Your task to perform on an android device: turn off location Image 0: 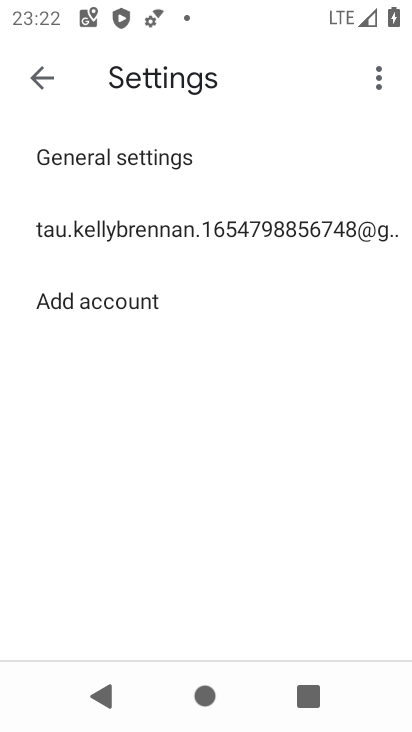
Step 0: press home button
Your task to perform on an android device: turn off location Image 1: 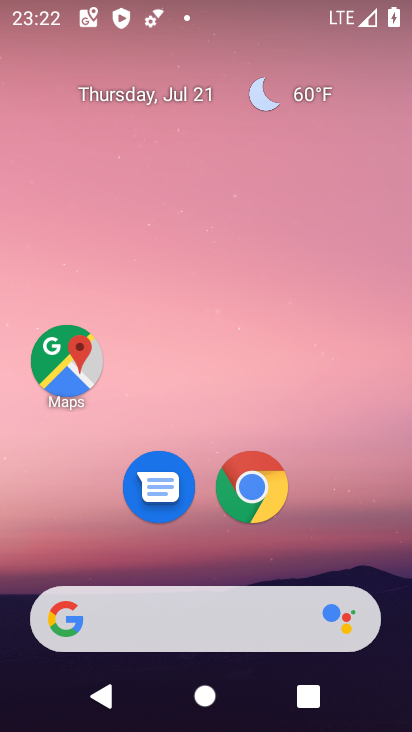
Step 1: drag from (117, 570) to (234, 26)
Your task to perform on an android device: turn off location Image 2: 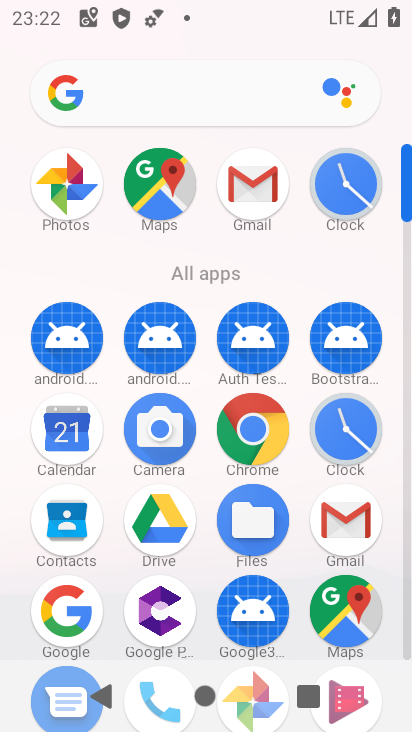
Step 2: drag from (155, 574) to (218, 127)
Your task to perform on an android device: turn off location Image 3: 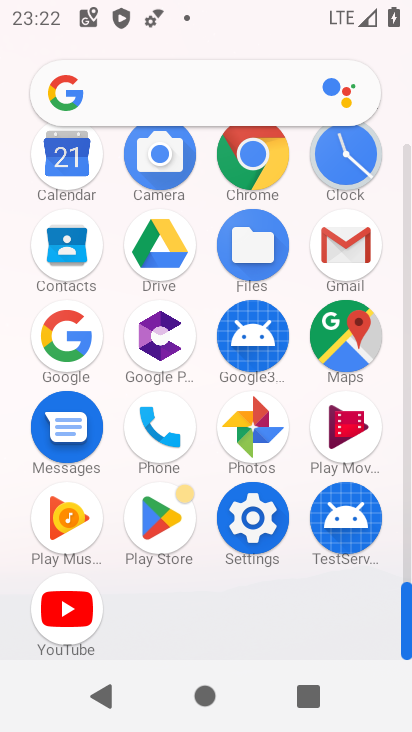
Step 3: click (254, 537)
Your task to perform on an android device: turn off location Image 4: 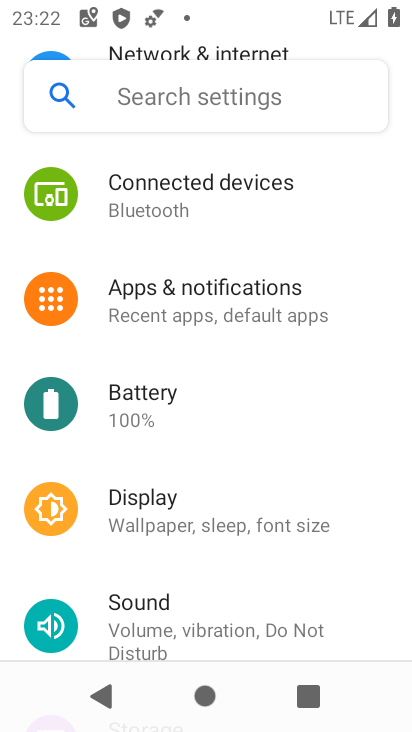
Step 4: drag from (192, 594) to (262, 153)
Your task to perform on an android device: turn off location Image 5: 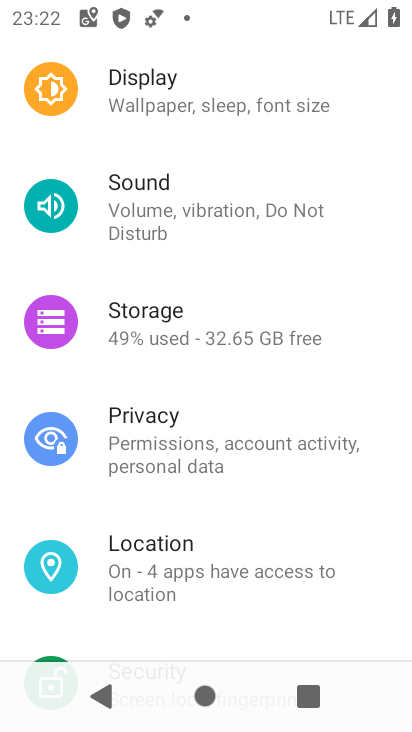
Step 5: click (182, 571)
Your task to perform on an android device: turn off location Image 6: 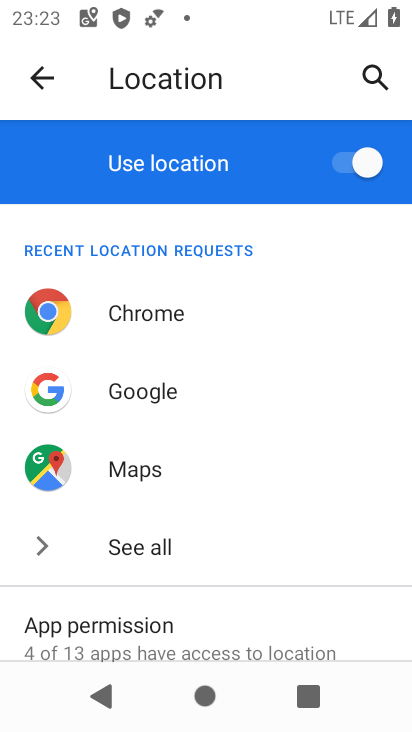
Step 6: click (373, 157)
Your task to perform on an android device: turn off location Image 7: 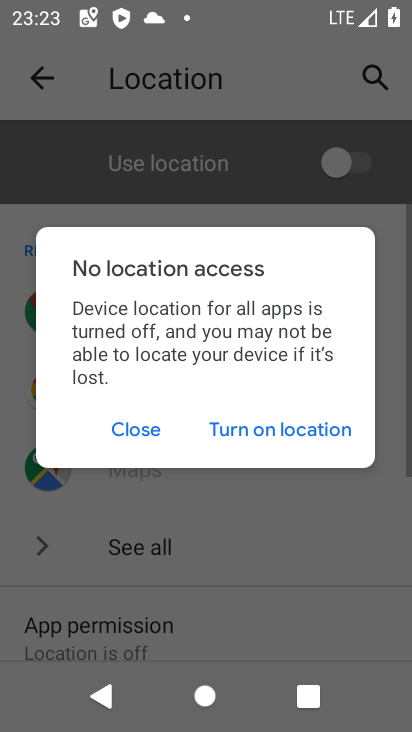
Step 7: task complete